Your task to perform on an android device: change the clock display to show seconds Image 0: 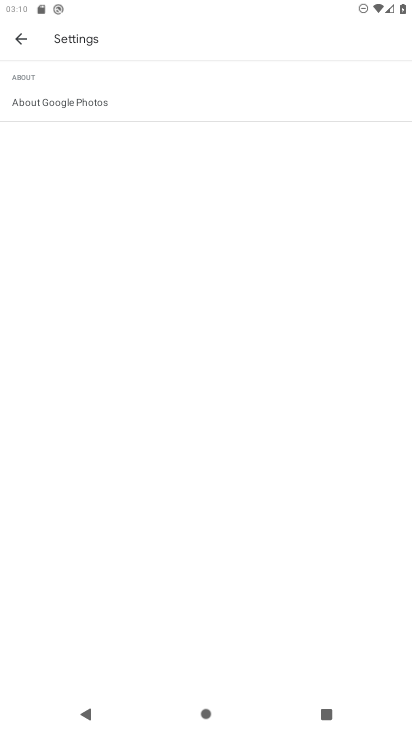
Step 0: press home button
Your task to perform on an android device: change the clock display to show seconds Image 1: 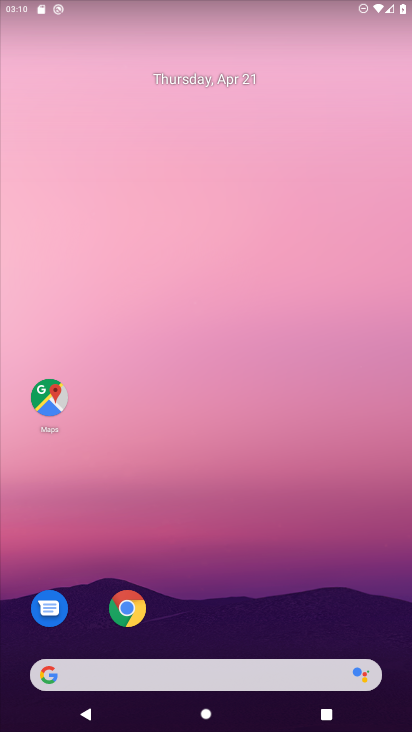
Step 1: drag from (245, 593) to (308, 139)
Your task to perform on an android device: change the clock display to show seconds Image 2: 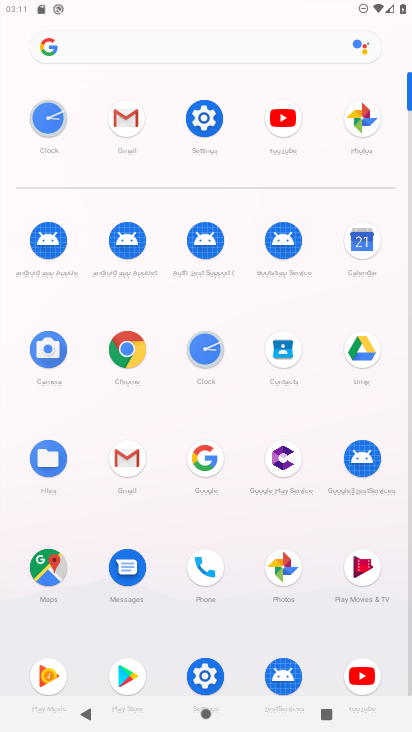
Step 2: click (204, 350)
Your task to perform on an android device: change the clock display to show seconds Image 3: 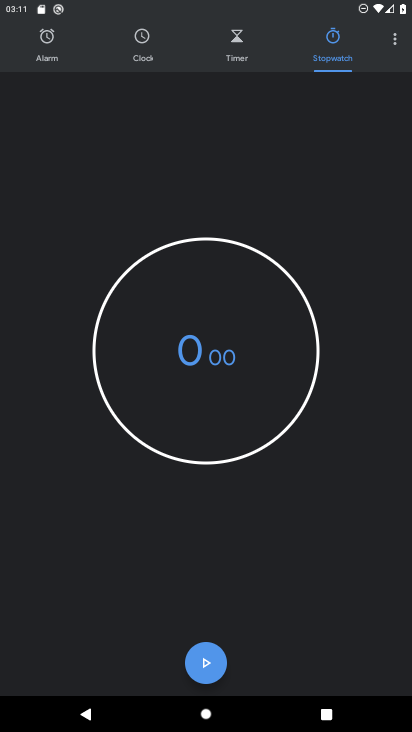
Step 3: click (393, 30)
Your task to perform on an android device: change the clock display to show seconds Image 4: 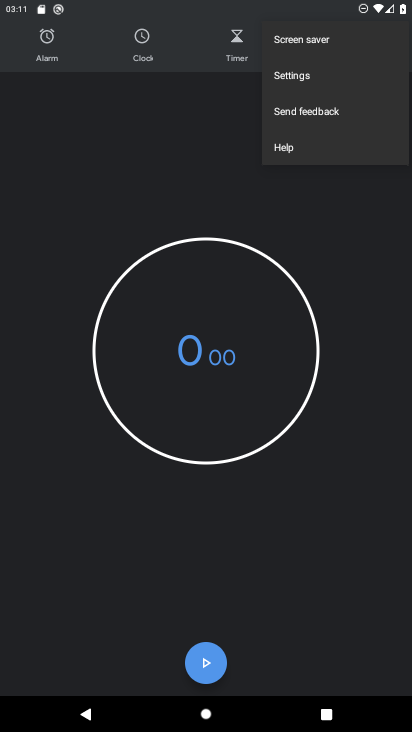
Step 4: click (317, 78)
Your task to perform on an android device: change the clock display to show seconds Image 5: 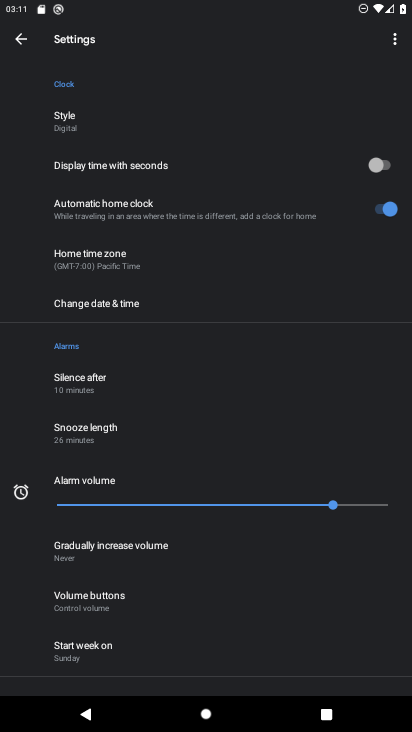
Step 5: click (382, 168)
Your task to perform on an android device: change the clock display to show seconds Image 6: 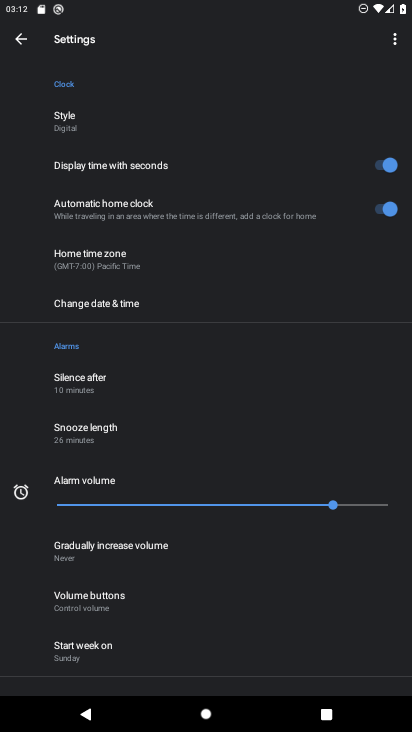
Step 6: task complete